Your task to perform on an android device: Open Maps and search for coffee Image 0: 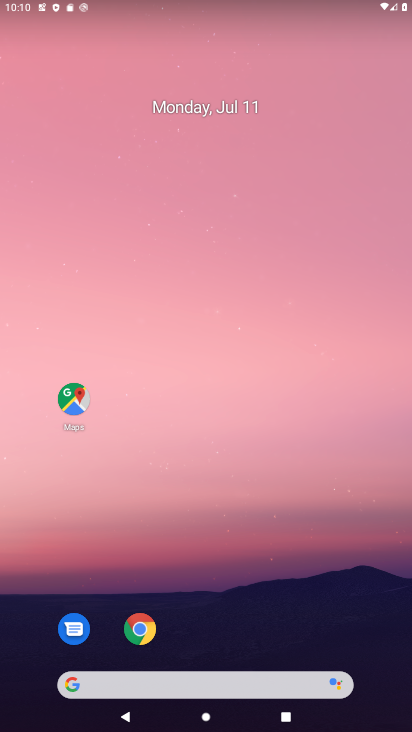
Step 0: click (88, 407)
Your task to perform on an android device: Open Maps and search for coffee Image 1: 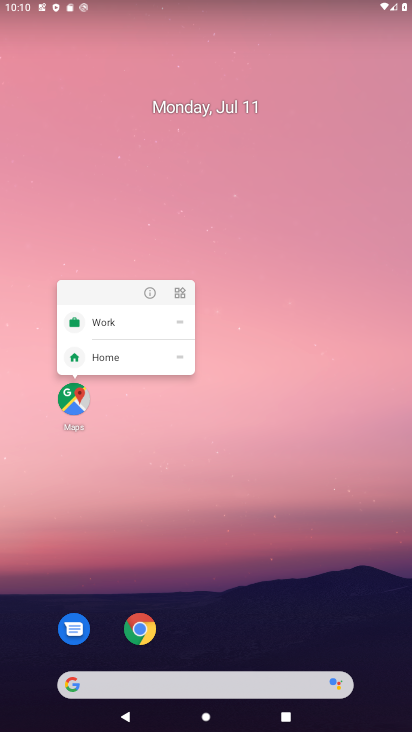
Step 1: click (64, 398)
Your task to perform on an android device: Open Maps and search for coffee Image 2: 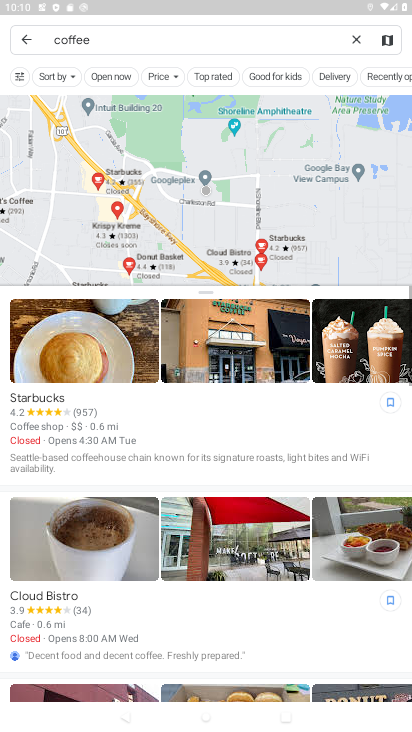
Step 2: task complete